Your task to perform on an android device: Open the stopwatch Image 0: 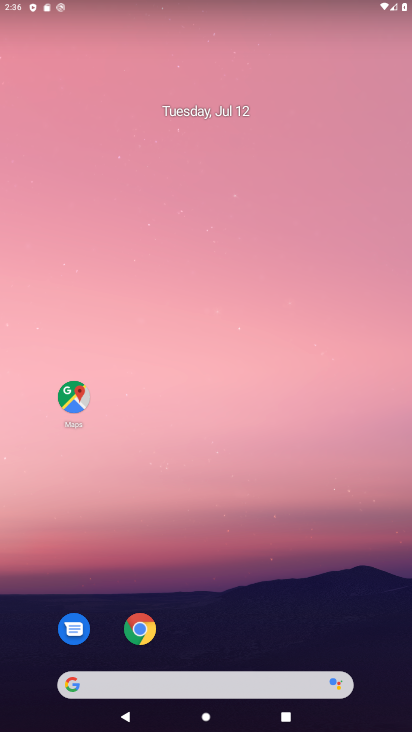
Step 0: drag from (205, 627) to (235, 142)
Your task to perform on an android device: Open the stopwatch Image 1: 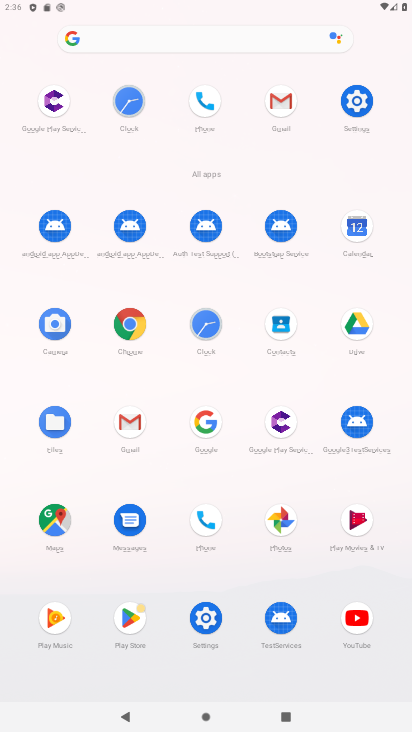
Step 1: click (205, 321)
Your task to perform on an android device: Open the stopwatch Image 2: 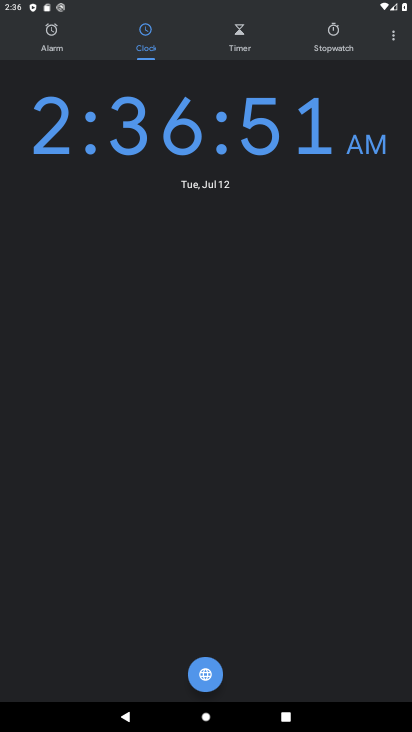
Step 2: click (338, 39)
Your task to perform on an android device: Open the stopwatch Image 3: 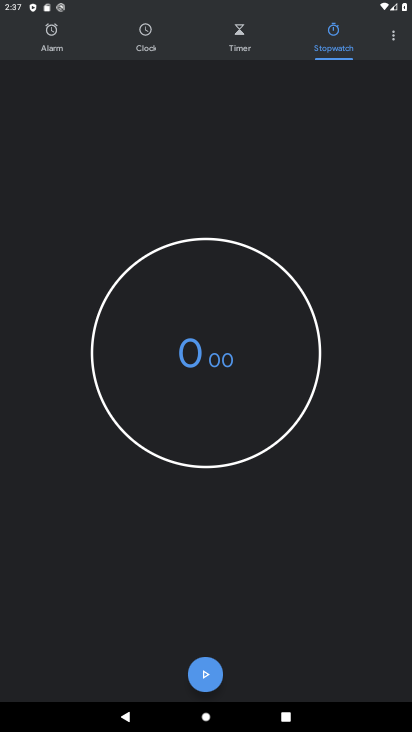
Step 3: task complete